Your task to perform on an android device: add a label to a message in the gmail app Image 0: 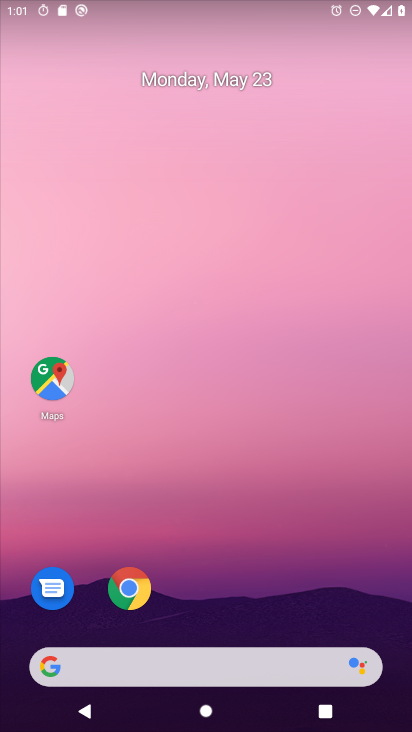
Step 0: drag from (284, 693) to (163, 326)
Your task to perform on an android device: add a label to a message in the gmail app Image 1: 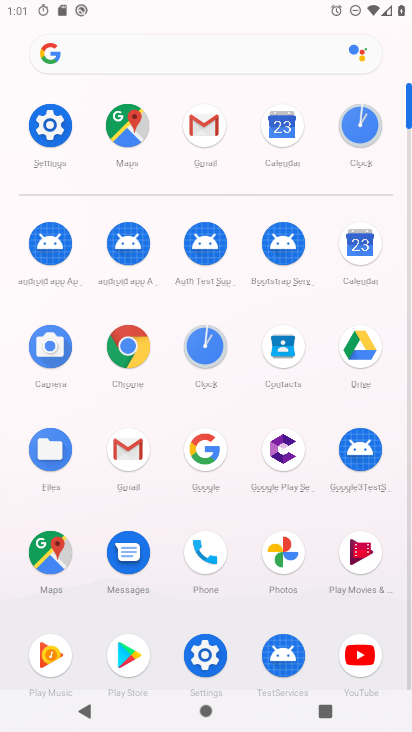
Step 1: click (123, 448)
Your task to perform on an android device: add a label to a message in the gmail app Image 2: 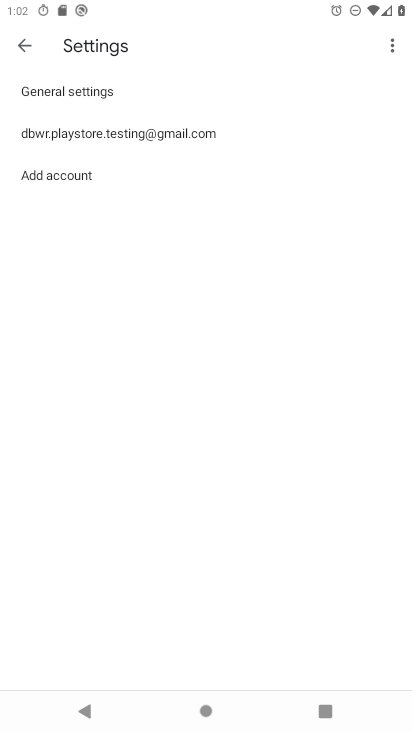
Step 2: click (97, 146)
Your task to perform on an android device: add a label to a message in the gmail app Image 3: 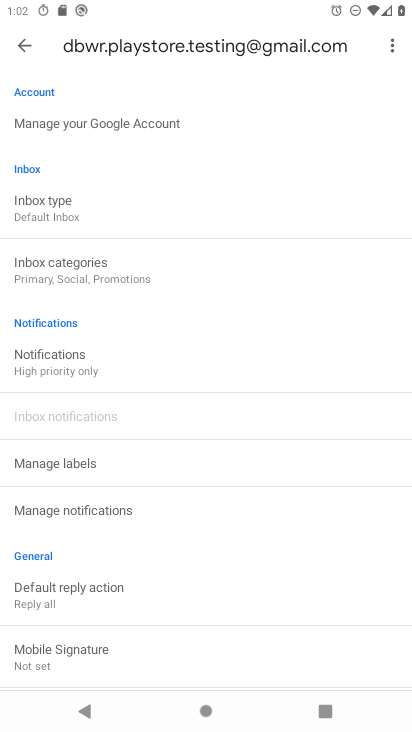
Step 3: click (81, 467)
Your task to perform on an android device: add a label to a message in the gmail app Image 4: 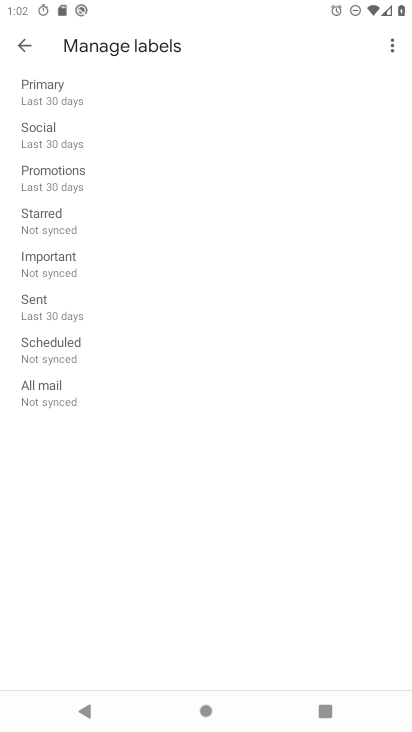
Step 4: click (94, 327)
Your task to perform on an android device: add a label to a message in the gmail app Image 5: 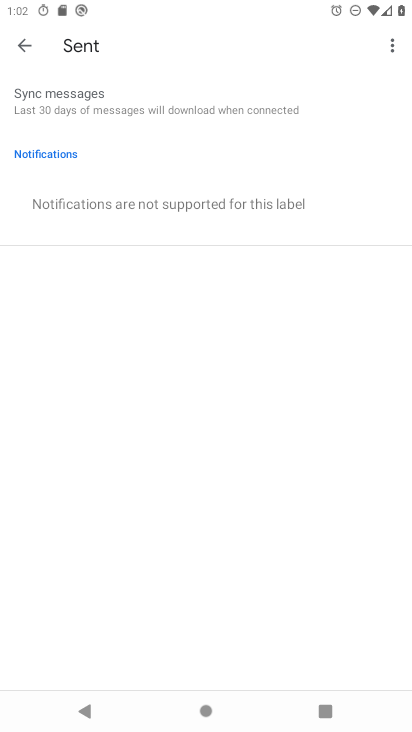
Step 5: task complete